Your task to perform on an android device: change the clock display to digital Image 0: 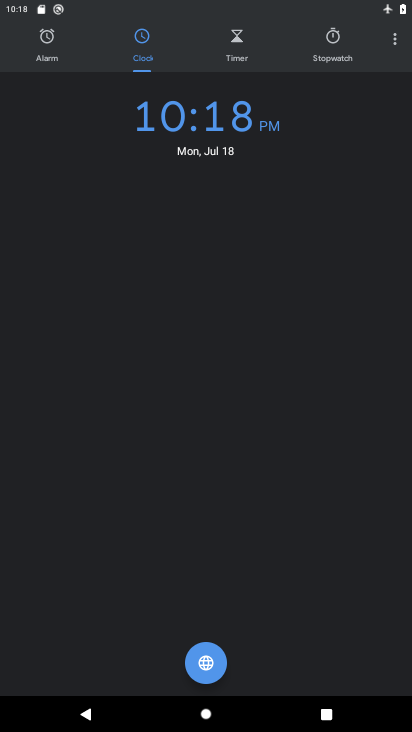
Step 0: press home button
Your task to perform on an android device: change the clock display to digital Image 1: 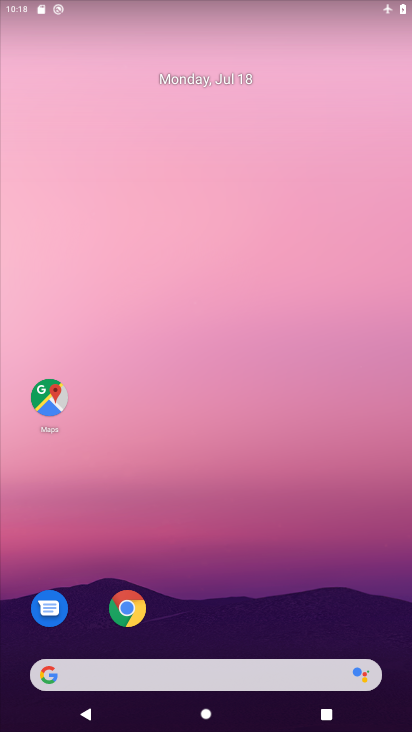
Step 1: drag from (198, 639) to (194, 36)
Your task to perform on an android device: change the clock display to digital Image 2: 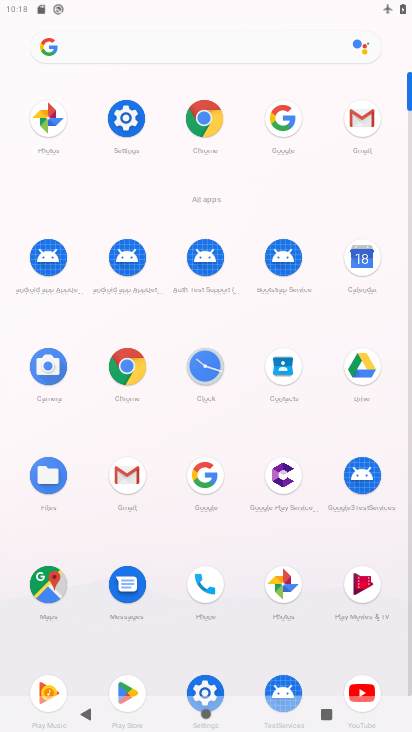
Step 2: click (214, 358)
Your task to perform on an android device: change the clock display to digital Image 3: 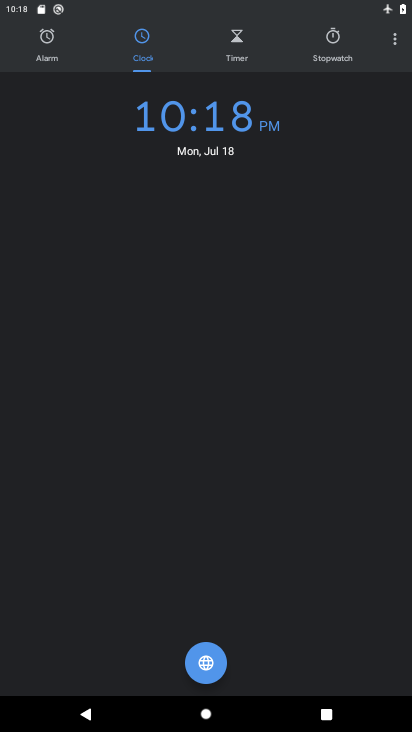
Step 3: click (389, 32)
Your task to perform on an android device: change the clock display to digital Image 4: 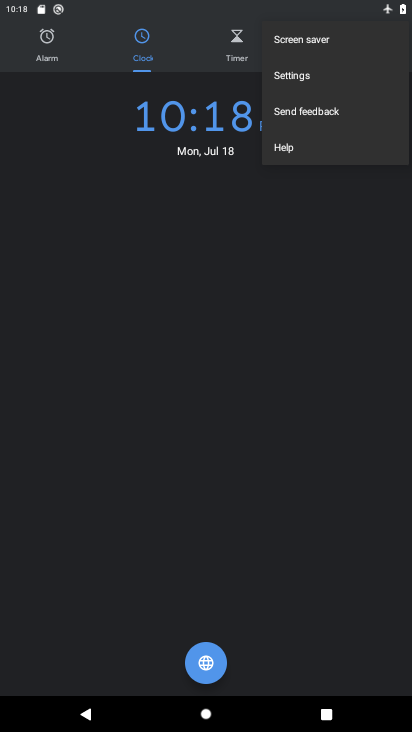
Step 4: click (295, 76)
Your task to perform on an android device: change the clock display to digital Image 5: 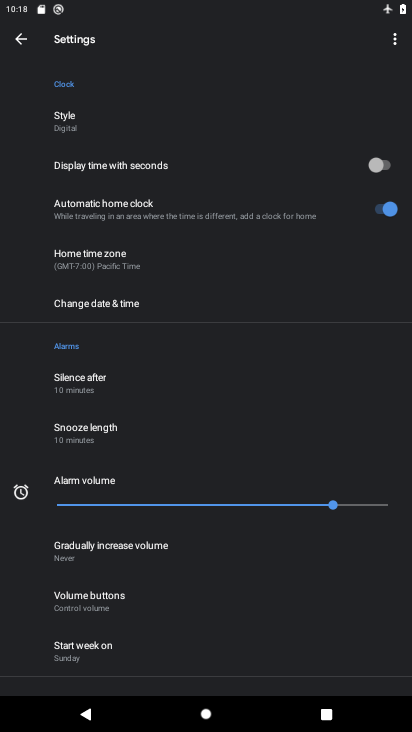
Step 5: click (69, 131)
Your task to perform on an android device: change the clock display to digital Image 6: 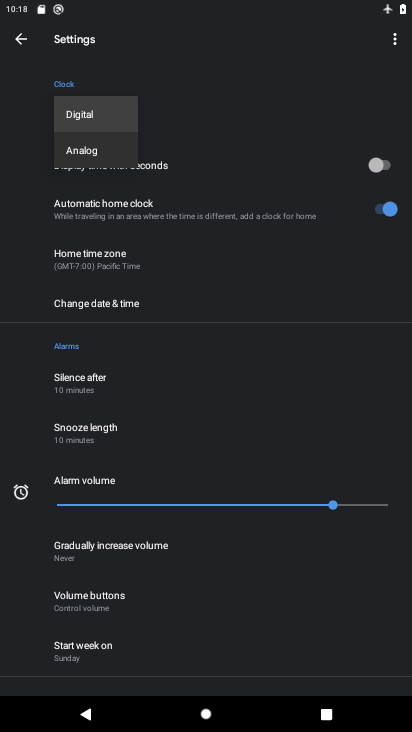
Step 6: click (91, 115)
Your task to perform on an android device: change the clock display to digital Image 7: 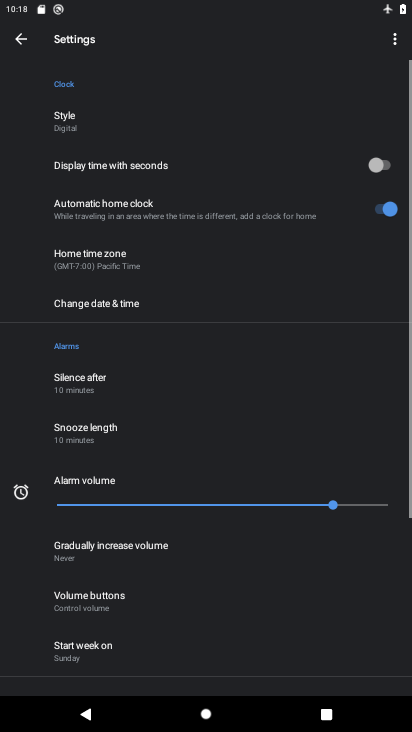
Step 7: task complete